Your task to perform on an android device: Open calendar and show me the second week of next month Image 0: 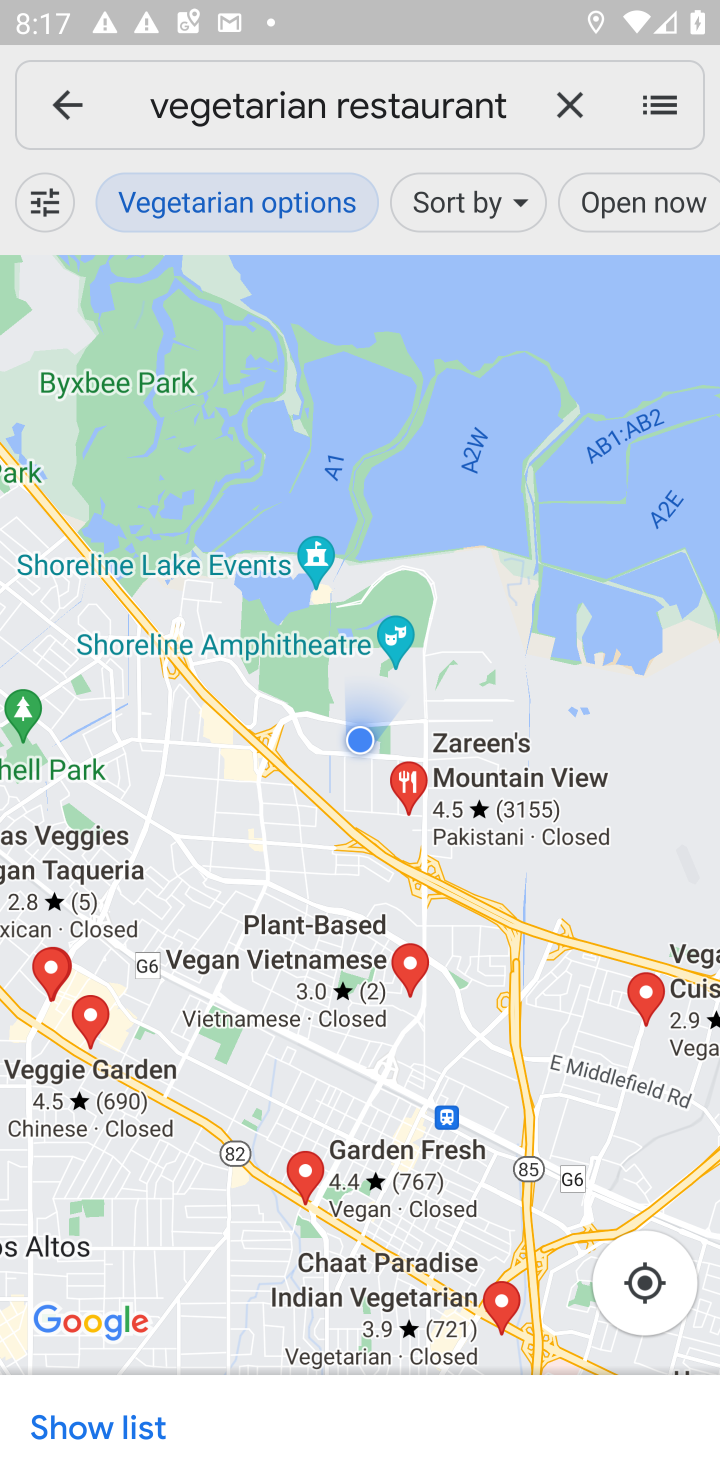
Step 0: press home button
Your task to perform on an android device: Open calendar and show me the second week of next month Image 1: 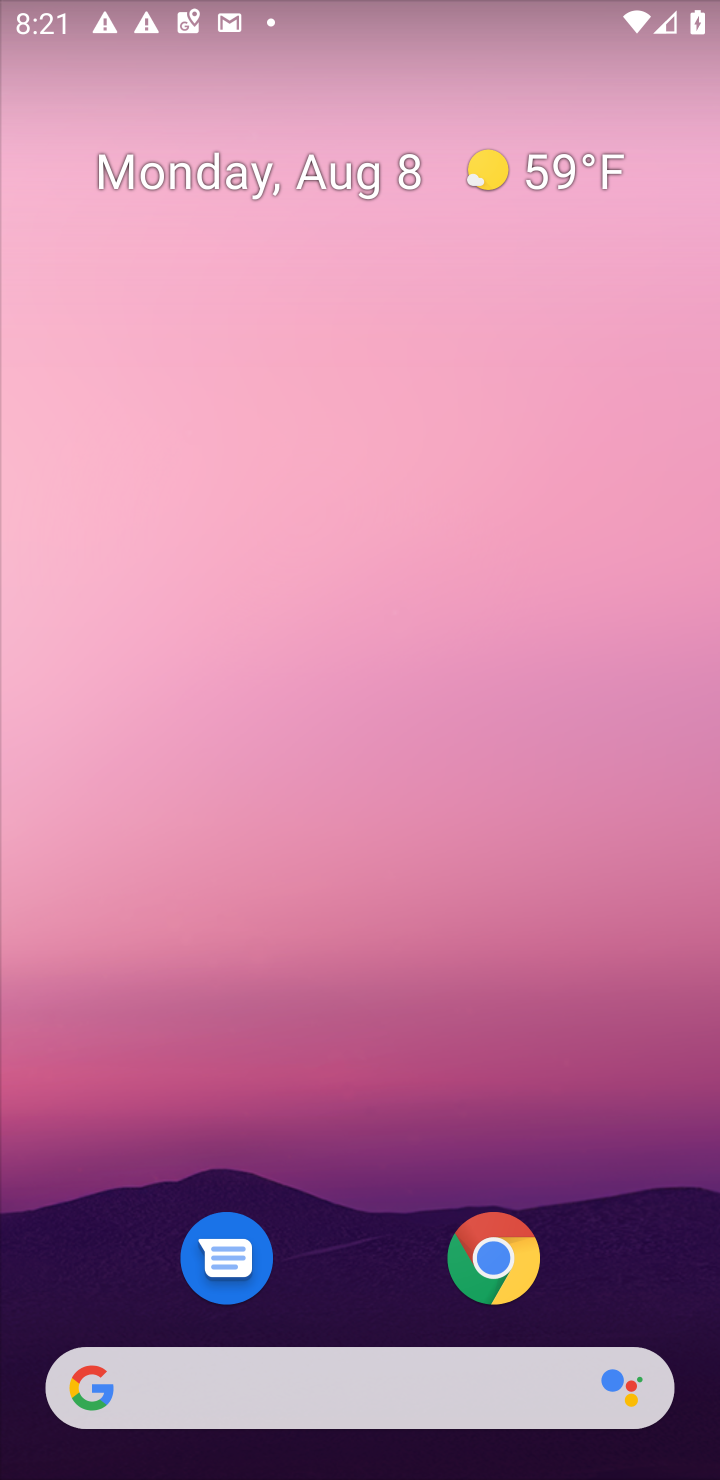
Step 1: drag from (381, 1218) to (363, 346)
Your task to perform on an android device: Open calendar and show me the second week of next month Image 2: 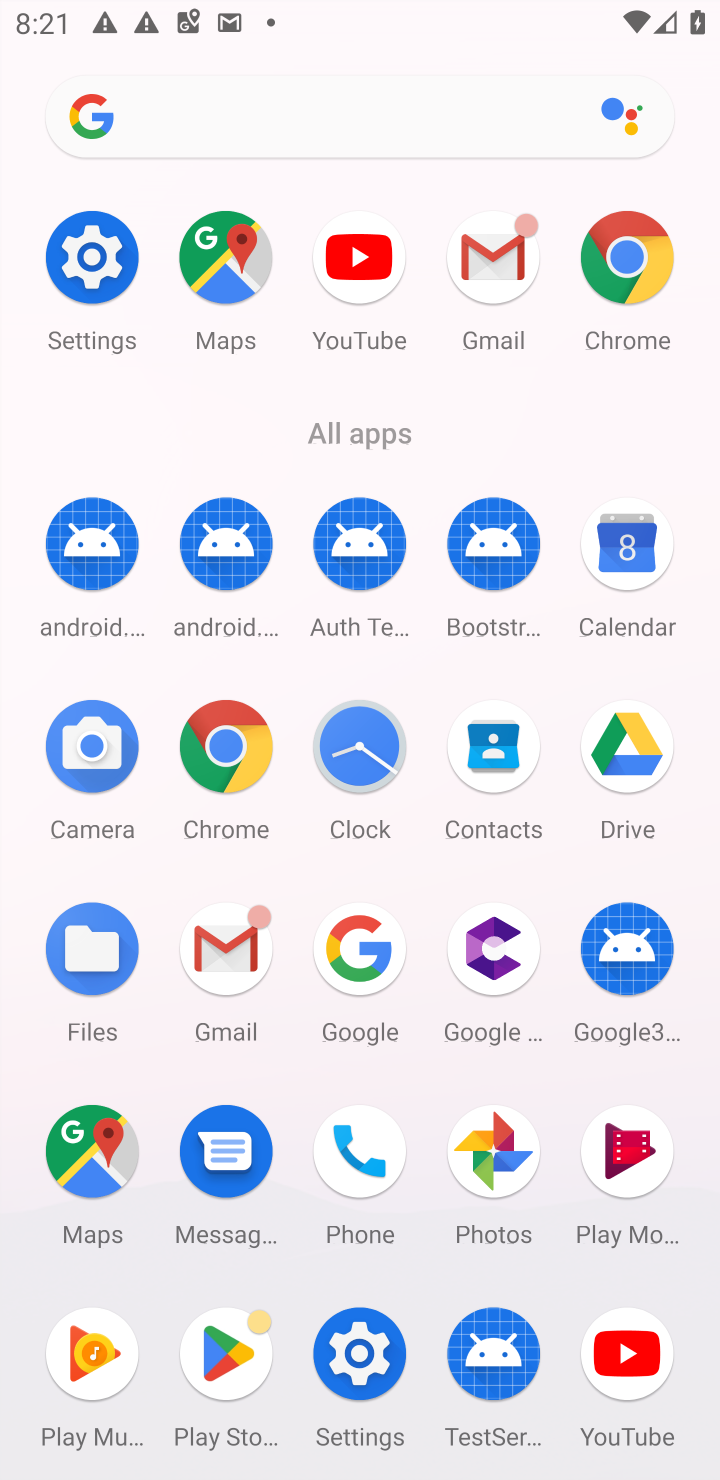
Step 2: click (647, 545)
Your task to perform on an android device: Open calendar and show me the second week of next month Image 3: 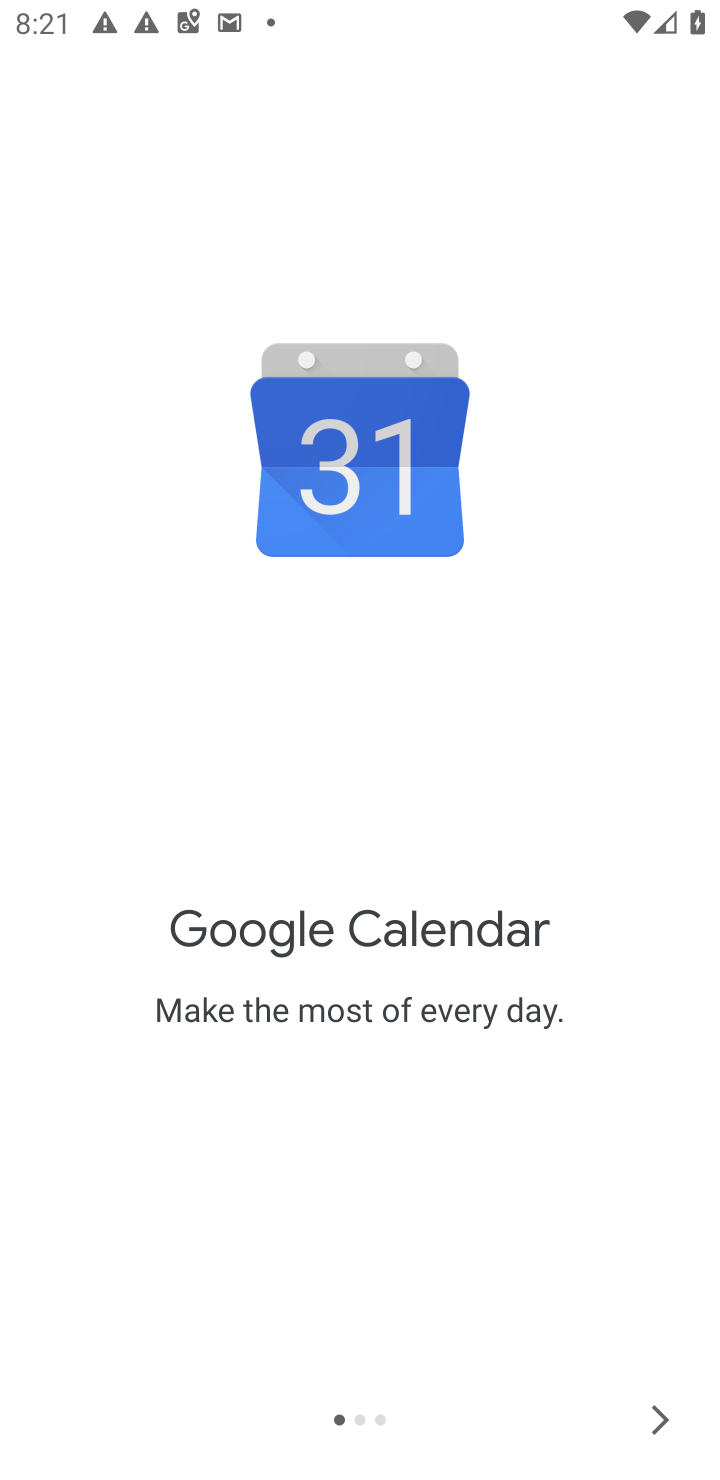
Step 3: click (656, 1409)
Your task to perform on an android device: Open calendar and show me the second week of next month Image 4: 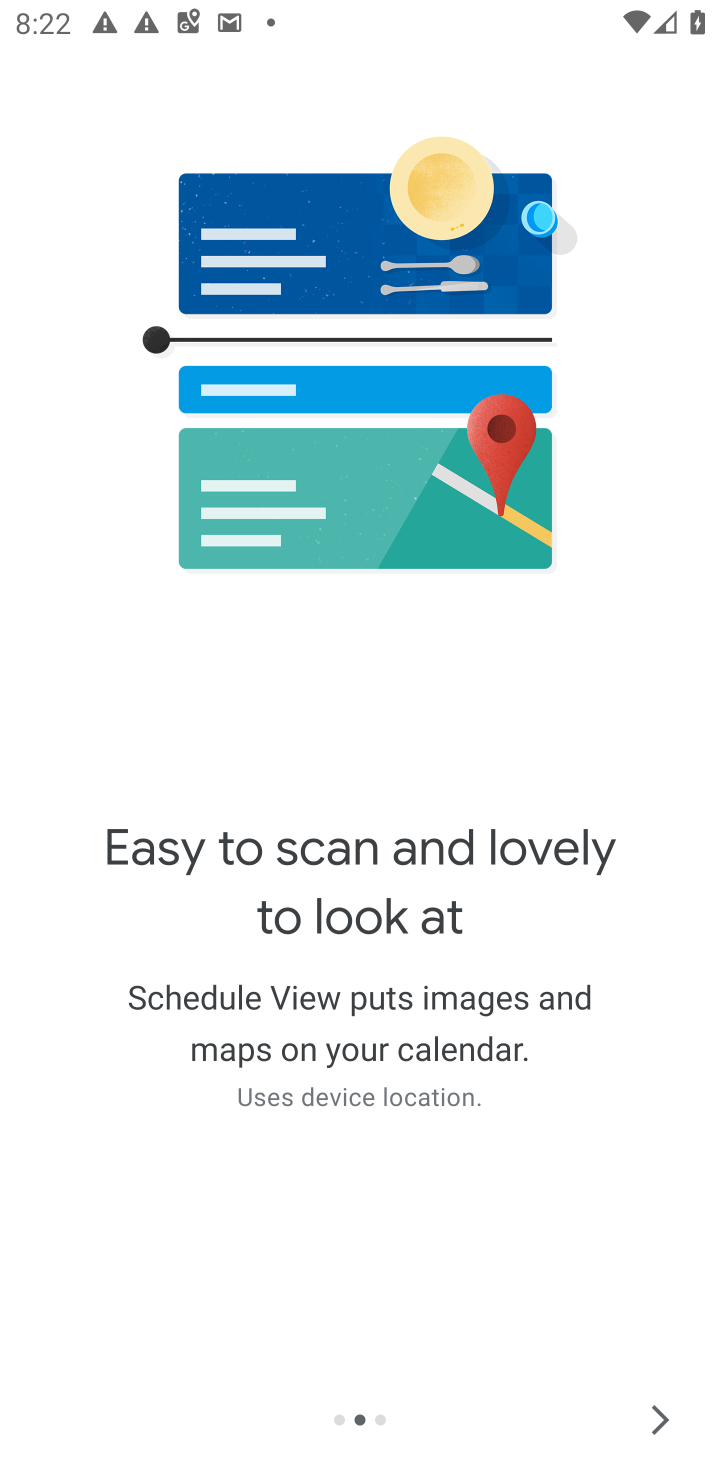
Step 4: click (656, 1409)
Your task to perform on an android device: Open calendar and show me the second week of next month Image 5: 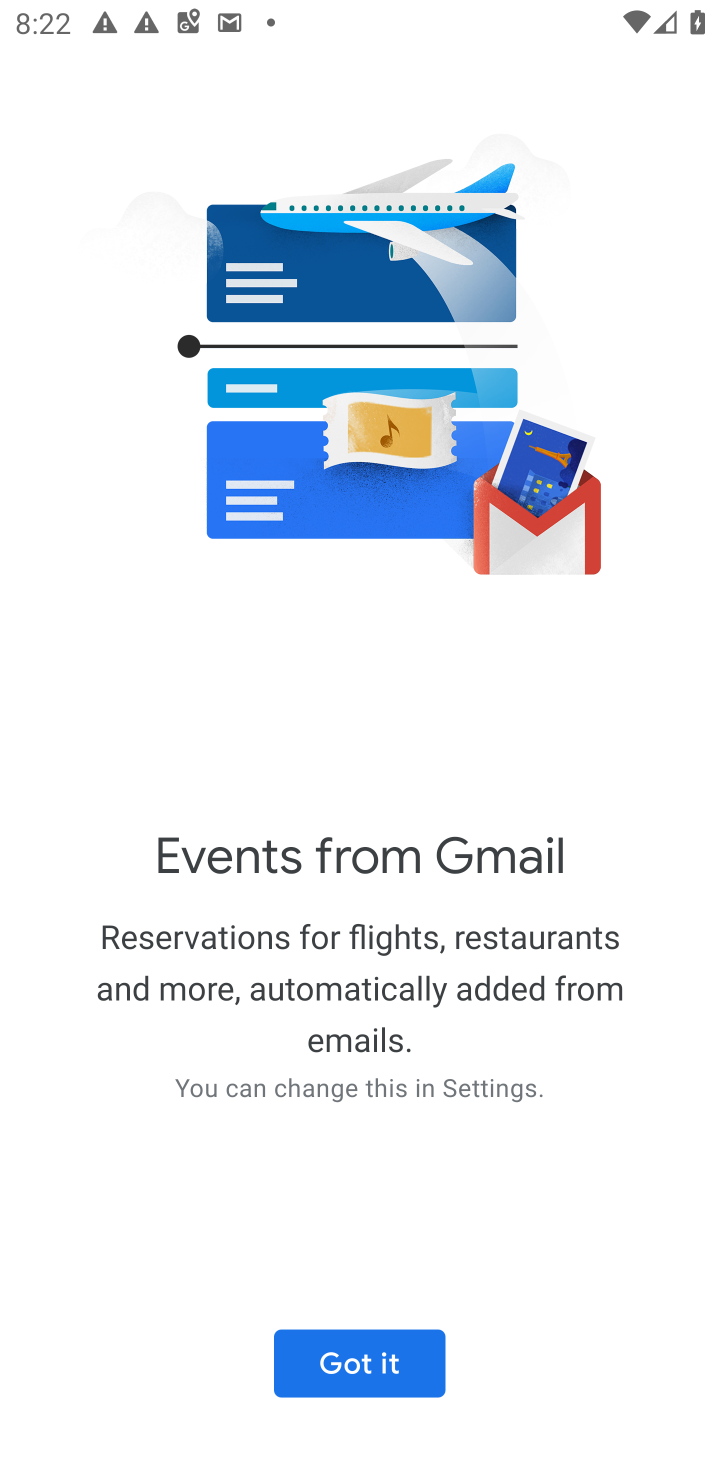
Step 5: click (348, 1376)
Your task to perform on an android device: Open calendar and show me the second week of next month Image 6: 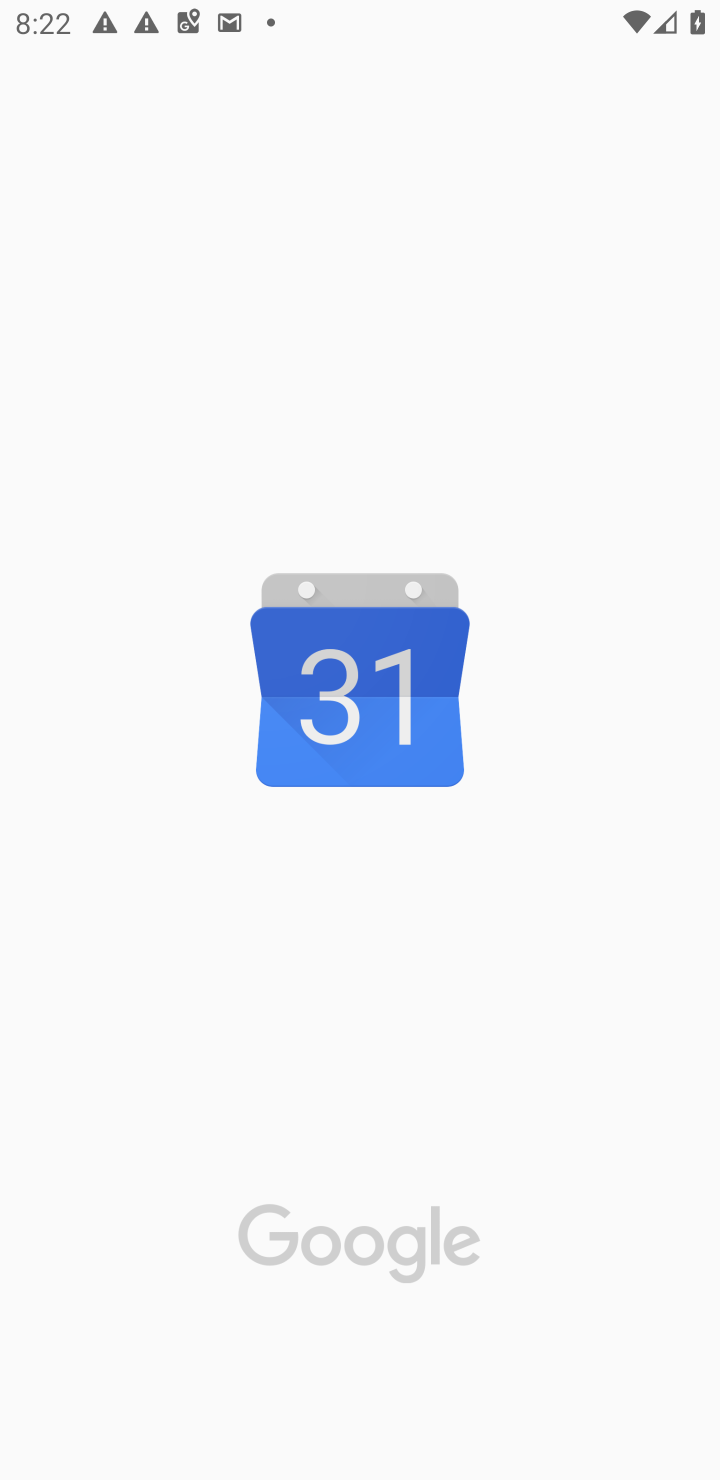
Step 6: task complete